Your task to perform on an android device: change notification settings in the gmail app Image 0: 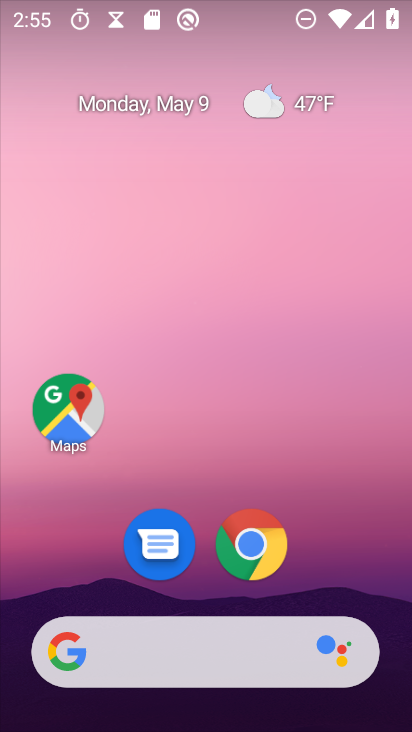
Step 0: drag from (361, 579) to (268, 121)
Your task to perform on an android device: change notification settings in the gmail app Image 1: 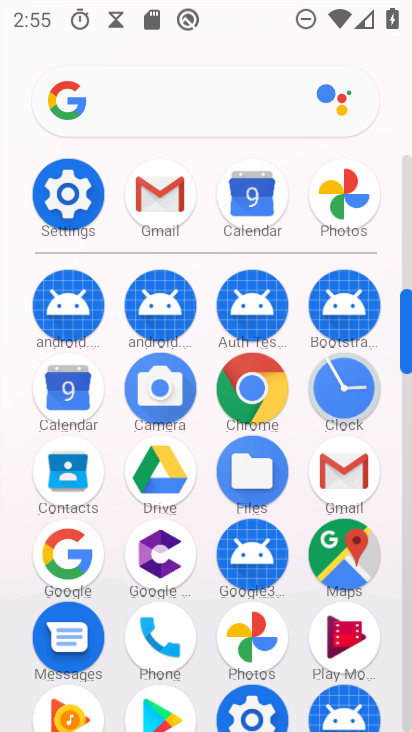
Step 1: click (165, 199)
Your task to perform on an android device: change notification settings in the gmail app Image 2: 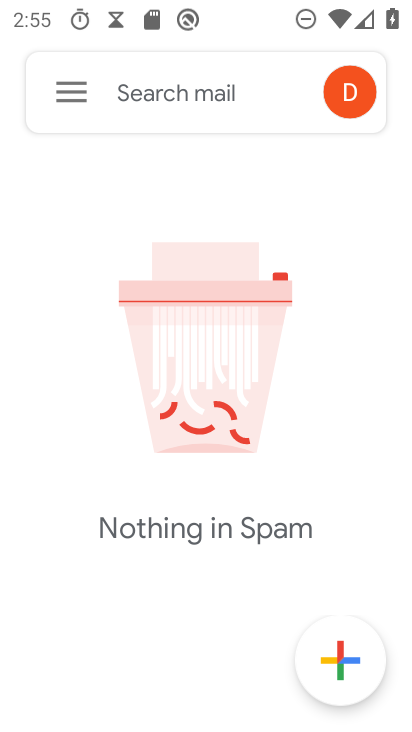
Step 2: click (61, 85)
Your task to perform on an android device: change notification settings in the gmail app Image 3: 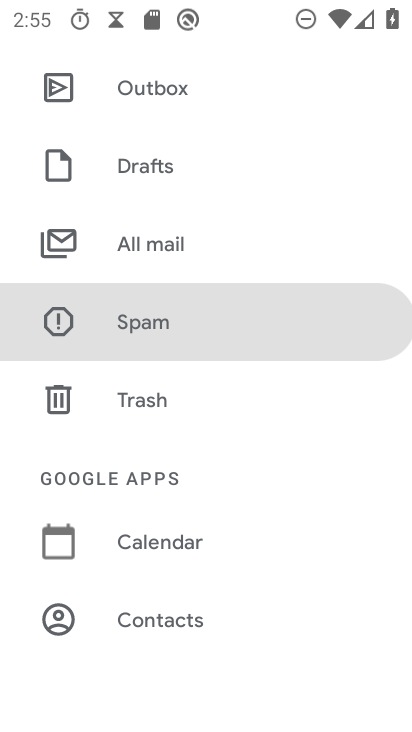
Step 3: drag from (163, 562) to (159, 175)
Your task to perform on an android device: change notification settings in the gmail app Image 4: 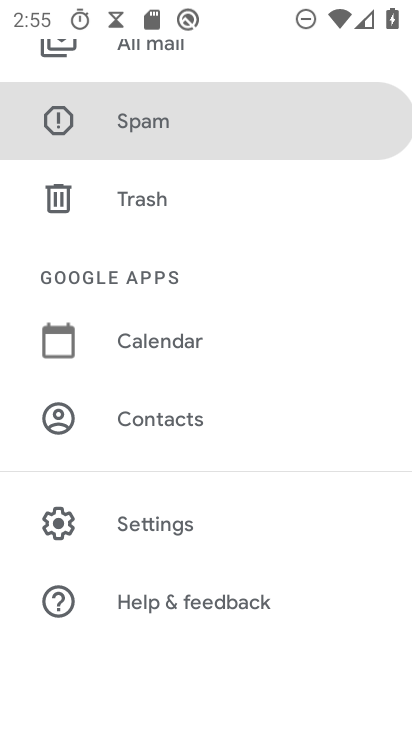
Step 4: drag from (163, 196) to (231, 530)
Your task to perform on an android device: change notification settings in the gmail app Image 5: 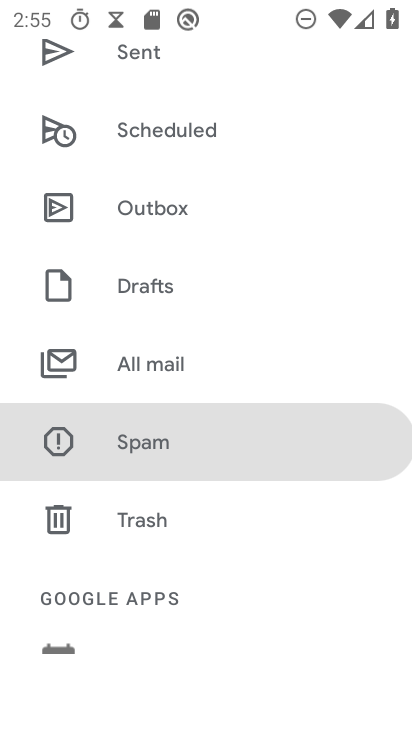
Step 5: drag from (194, 518) to (125, 104)
Your task to perform on an android device: change notification settings in the gmail app Image 6: 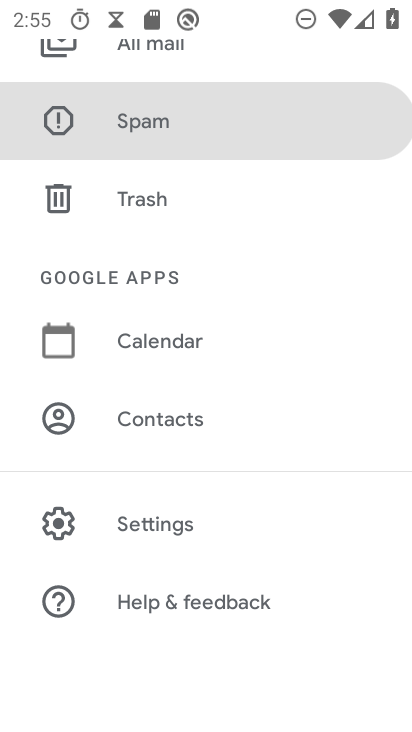
Step 6: click (168, 524)
Your task to perform on an android device: change notification settings in the gmail app Image 7: 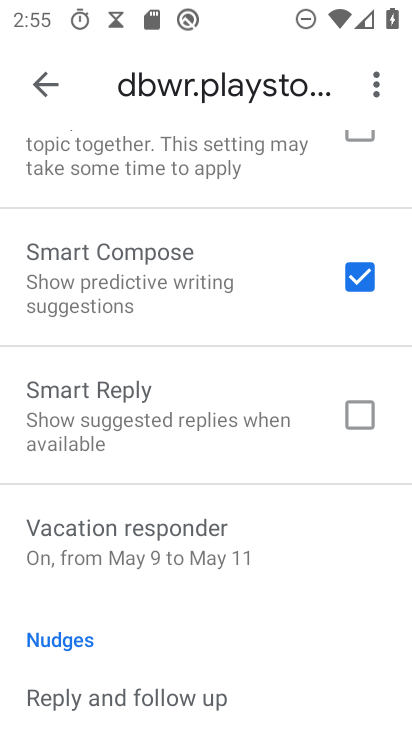
Step 7: drag from (186, 637) to (146, 265)
Your task to perform on an android device: change notification settings in the gmail app Image 8: 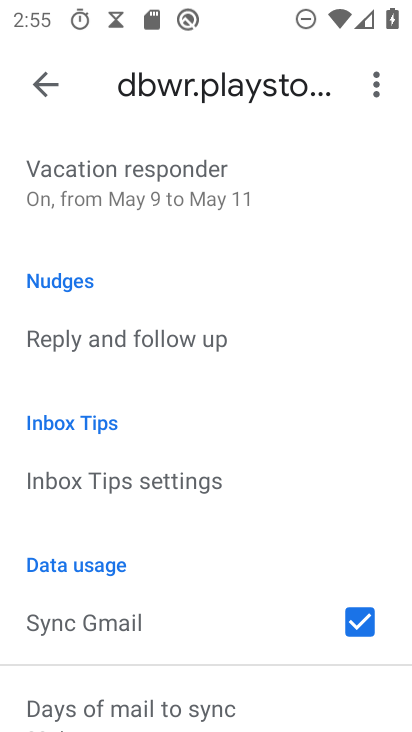
Step 8: drag from (146, 265) to (138, 593)
Your task to perform on an android device: change notification settings in the gmail app Image 9: 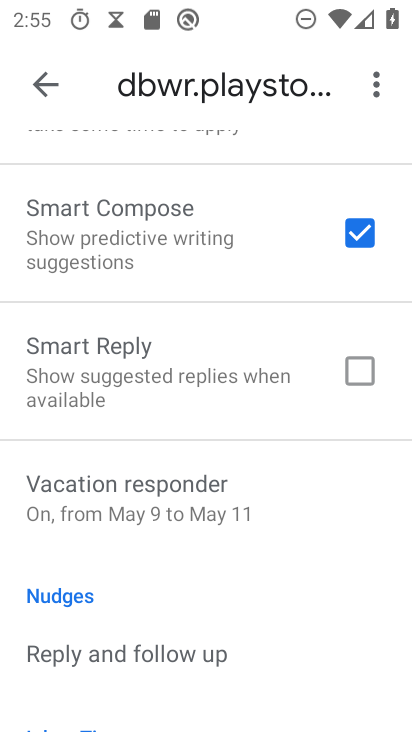
Step 9: drag from (123, 314) to (146, 598)
Your task to perform on an android device: change notification settings in the gmail app Image 10: 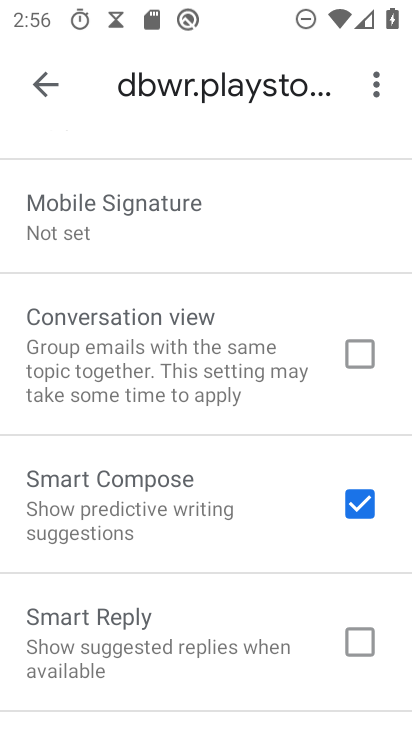
Step 10: drag from (123, 271) to (178, 592)
Your task to perform on an android device: change notification settings in the gmail app Image 11: 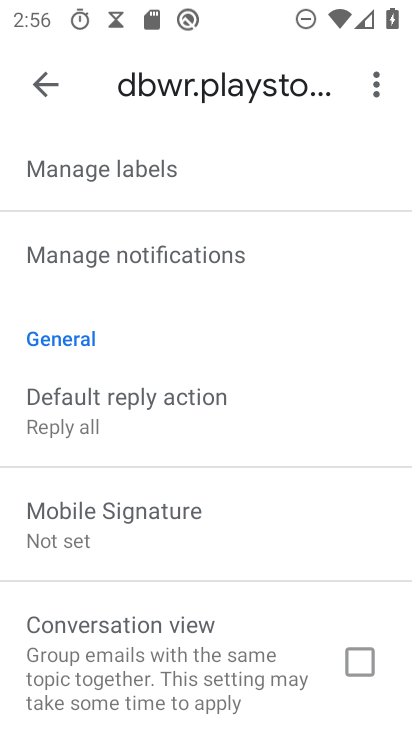
Step 11: drag from (187, 220) to (195, 575)
Your task to perform on an android device: change notification settings in the gmail app Image 12: 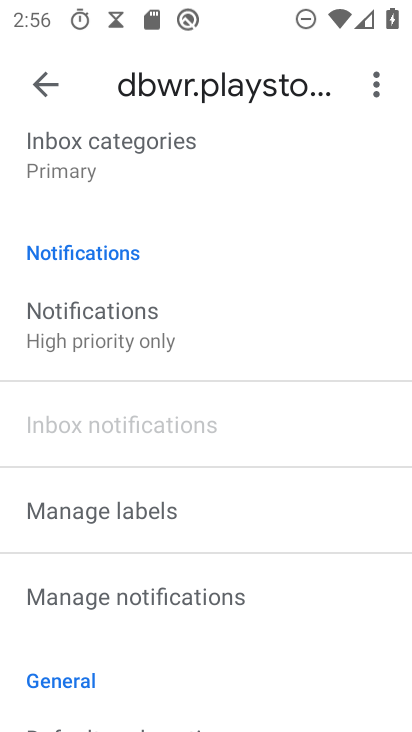
Step 12: click (120, 346)
Your task to perform on an android device: change notification settings in the gmail app Image 13: 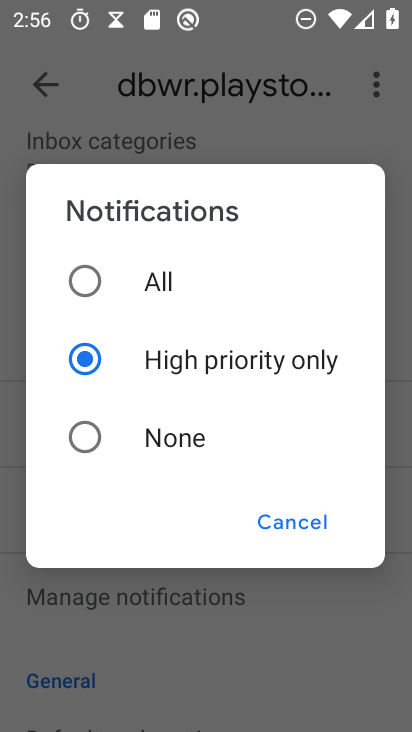
Step 13: click (69, 283)
Your task to perform on an android device: change notification settings in the gmail app Image 14: 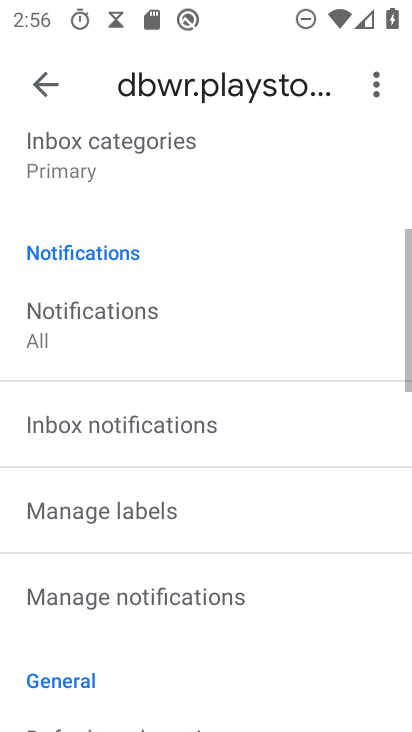
Step 14: task complete